Your task to perform on an android device: turn on the 24-hour format for clock Image 0: 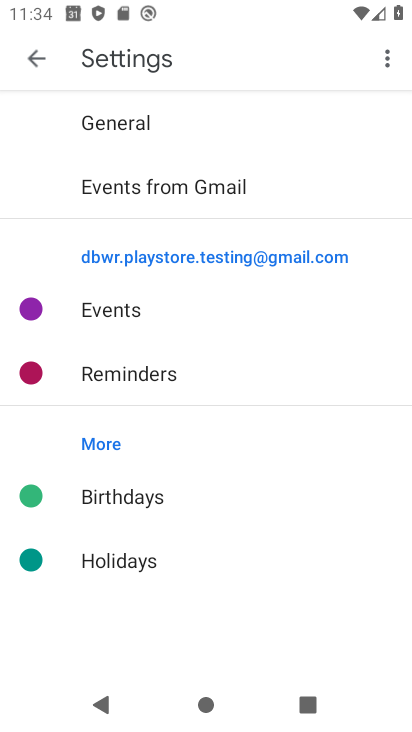
Step 0: press home button
Your task to perform on an android device: turn on the 24-hour format for clock Image 1: 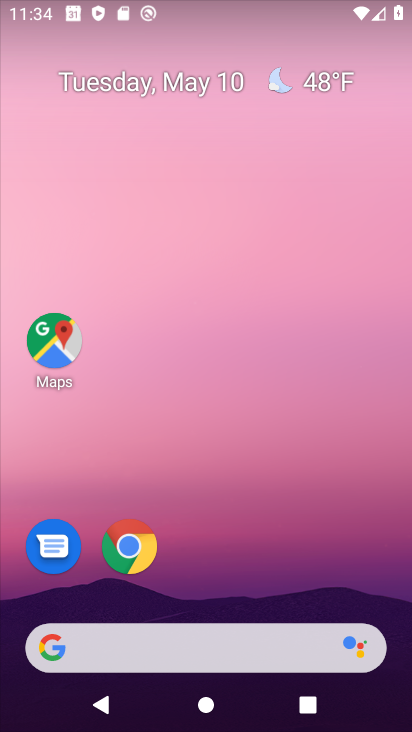
Step 1: drag from (249, 594) to (207, 199)
Your task to perform on an android device: turn on the 24-hour format for clock Image 2: 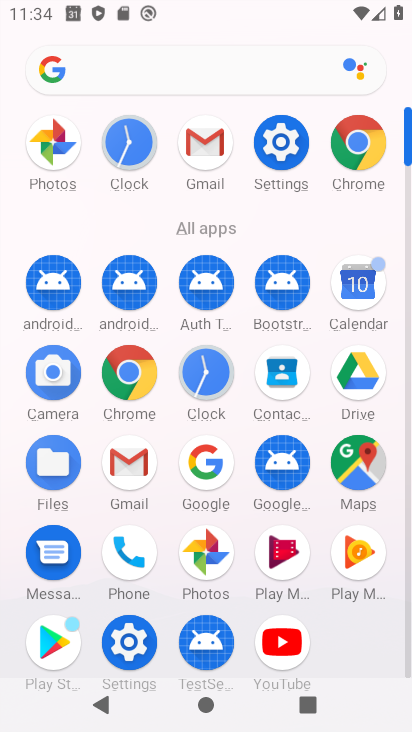
Step 2: click (127, 169)
Your task to perform on an android device: turn on the 24-hour format for clock Image 3: 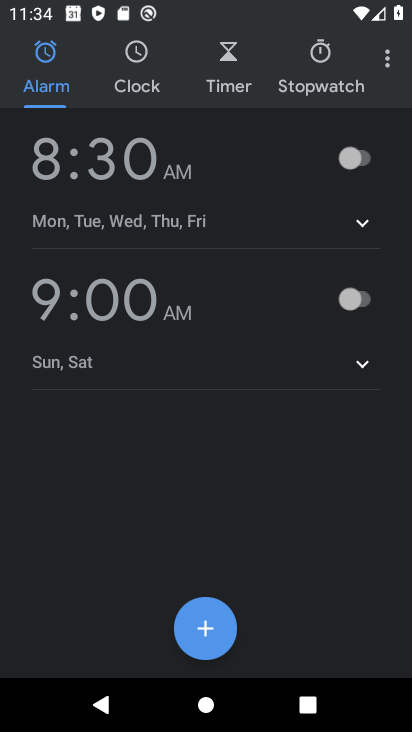
Step 3: click (378, 71)
Your task to perform on an android device: turn on the 24-hour format for clock Image 4: 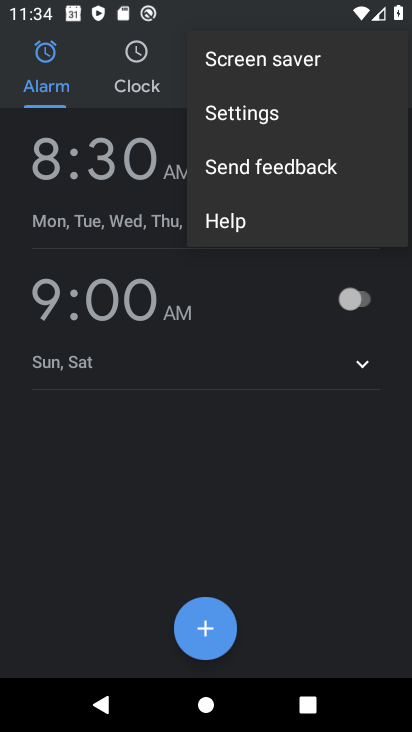
Step 4: click (297, 114)
Your task to perform on an android device: turn on the 24-hour format for clock Image 5: 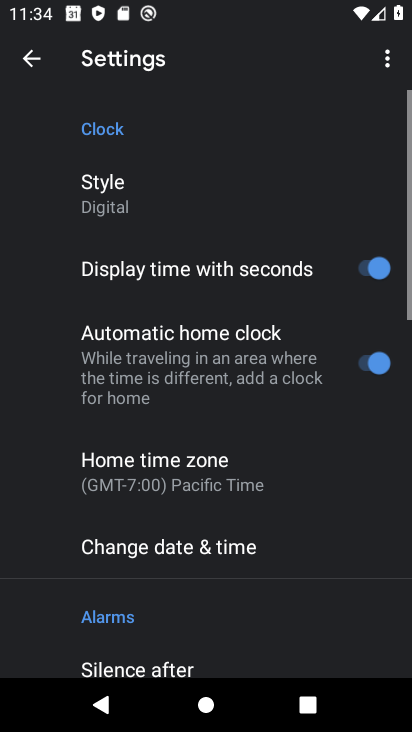
Step 5: click (221, 541)
Your task to perform on an android device: turn on the 24-hour format for clock Image 6: 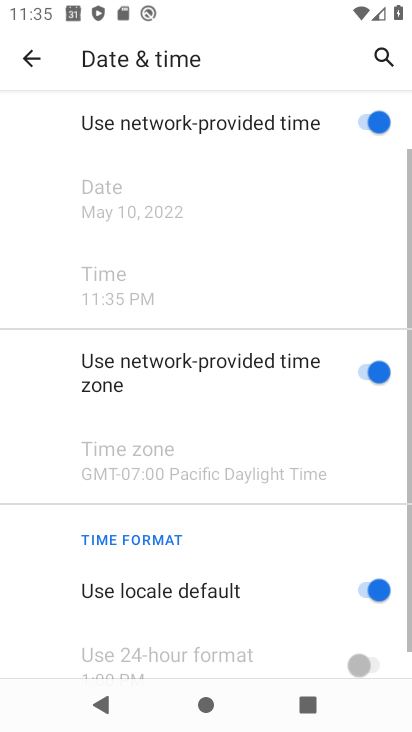
Step 6: drag from (255, 552) to (255, 282)
Your task to perform on an android device: turn on the 24-hour format for clock Image 7: 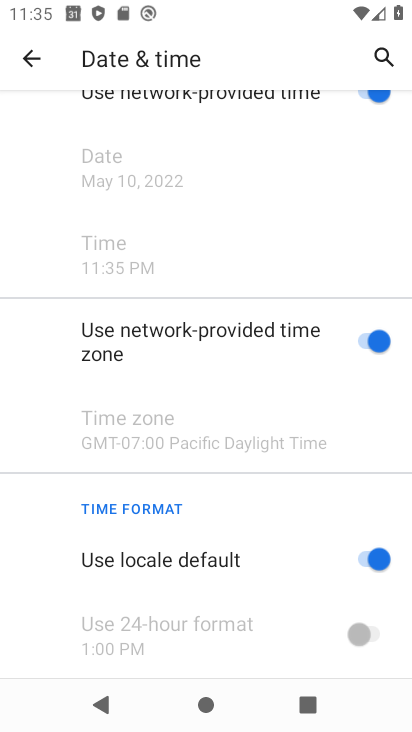
Step 7: click (369, 561)
Your task to perform on an android device: turn on the 24-hour format for clock Image 8: 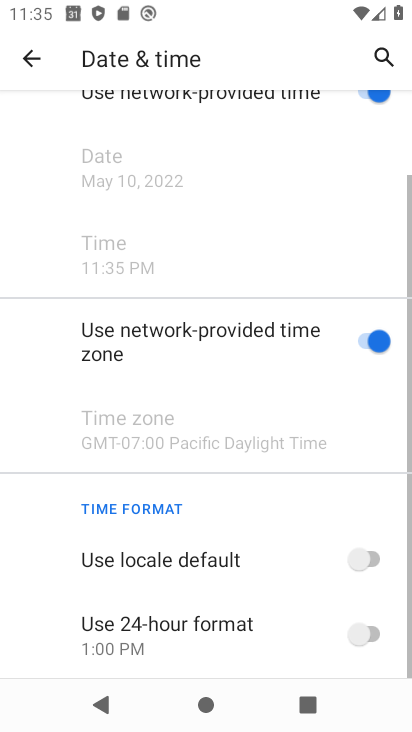
Step 8: click (371, 640)
Your task to perform on an android device: turn on the 24-hour format for clock Image 9: 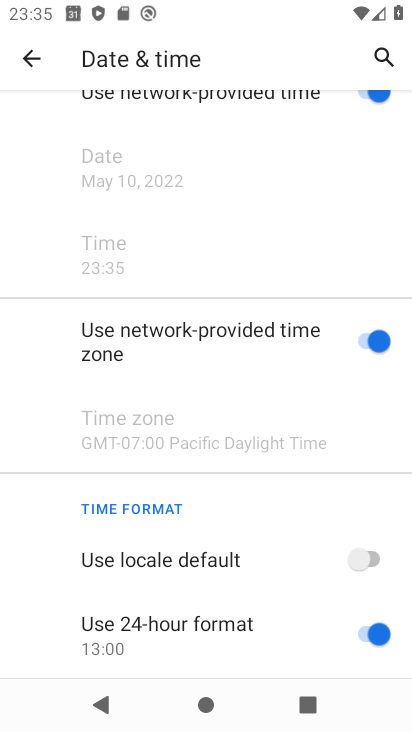
Step 9: task complete